Your task to perform on an android device: turn off smart reply in the gmail app Image 0: 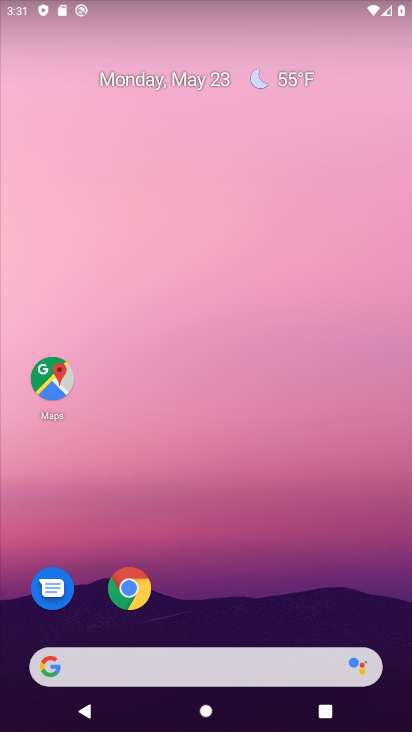
Step 0: drag from (225, 584) to (227, 111)
Your task to perform on an android device: turn off smart reply in the gmail app Image 1: 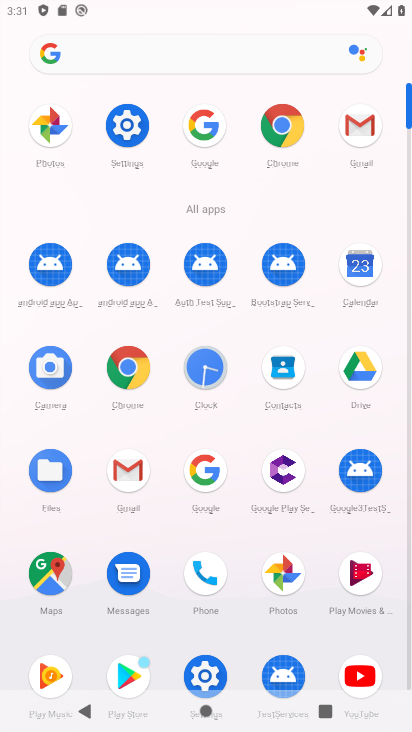
Step 1: click (352, 133)
Your task to perform on an android device: turn off smart reply in the gmail app Image 2: 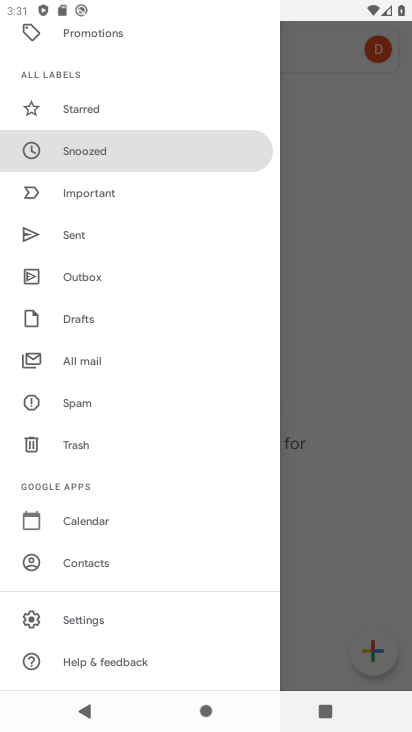
Step 2: click (82, 620)
Your task to perform on an android device: turn off smart reply in the gmail app Image 3: 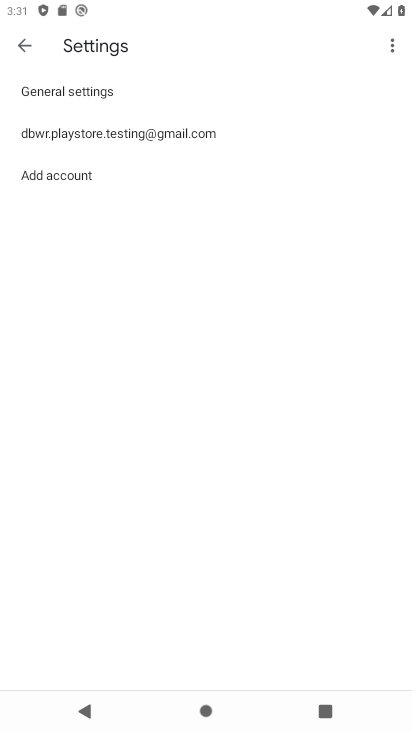
Step 3: click (128, 140)
Your task to perform on an android device: turn off smart reply in the gmail app Image 4: 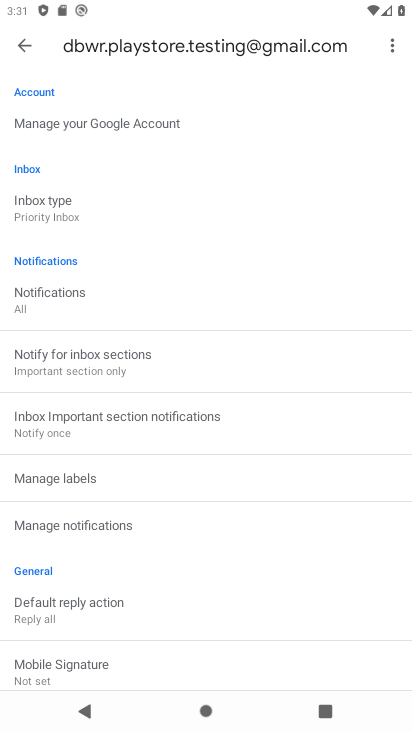
Step 4: drag from (185, 550) to (206, 151)
Your task to perform on an android device: turn off smart reply in the gmail app Image 5: 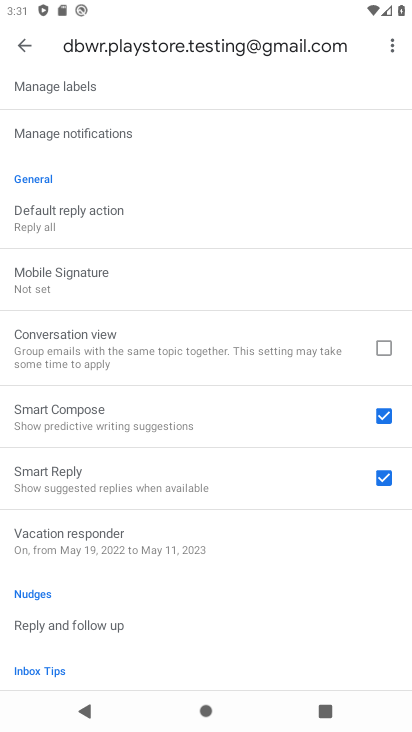
Step 5: click (380, 476)
Your task to perform on an android device: turn off smart reply in the gmail app Image 6: 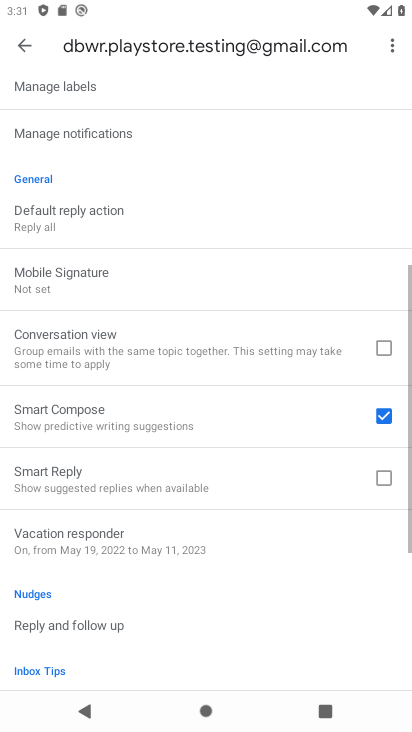
Step 6: task complete